Your task to perform on an android device: delete browsing data in the chrome app Image 0: 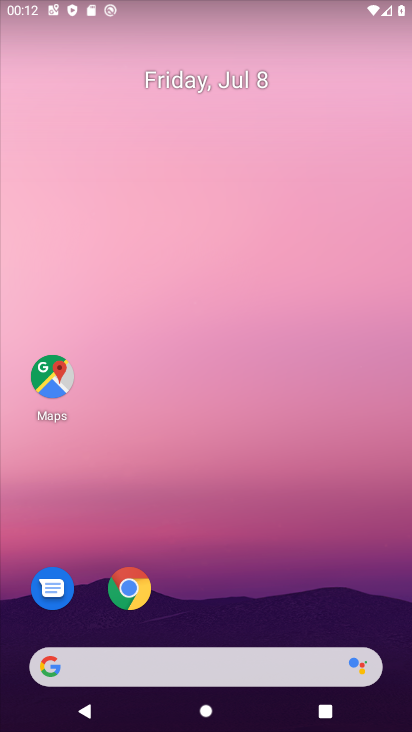
Step 0: click (304, 22)
Your task to perform on an android device: delete browsing data in the chrome app Image 1: 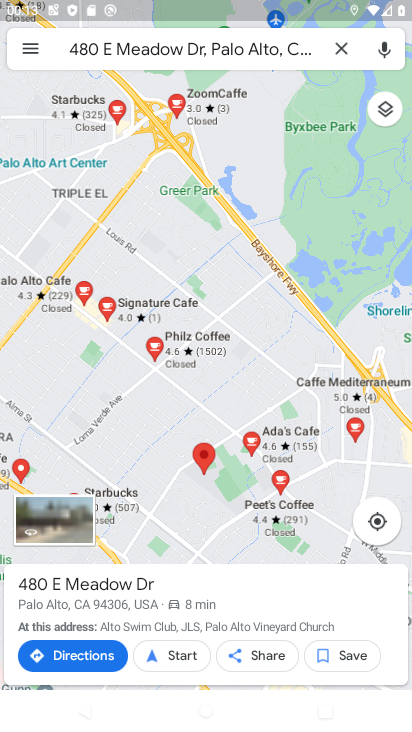
Step 1: press home button
Your task to perform on an android device: delete browsing data in the chrome app Image 2: 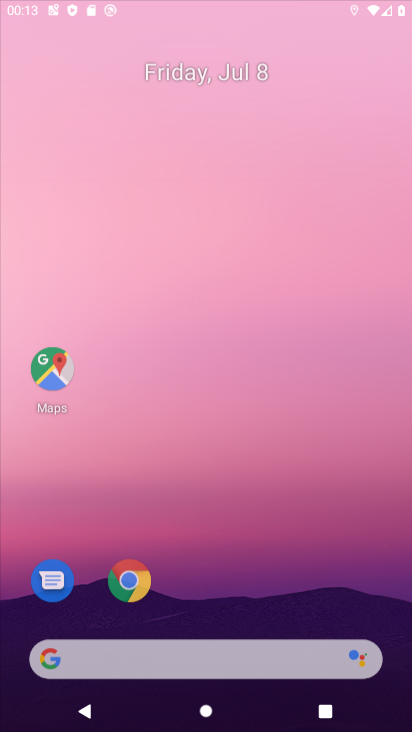
Step 2: drag from (193, 605) to (330, 99)
Your task to perform on an android device: delete browsing data in the chrome app Image 3: 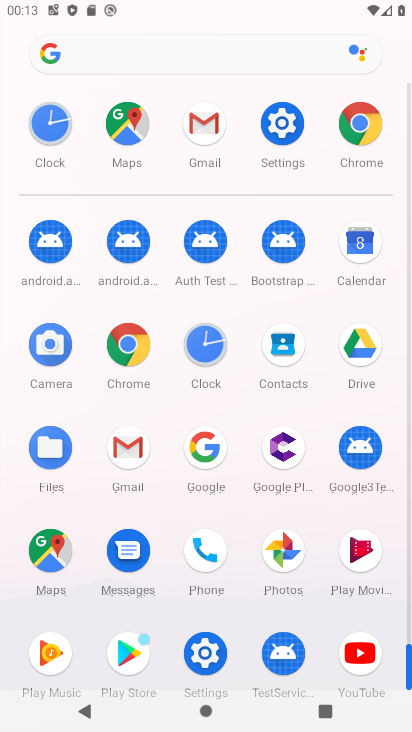
Step 3: click (367, 120)
Your task to perform on an android device: delete browsing data in the chrome app Image 4: 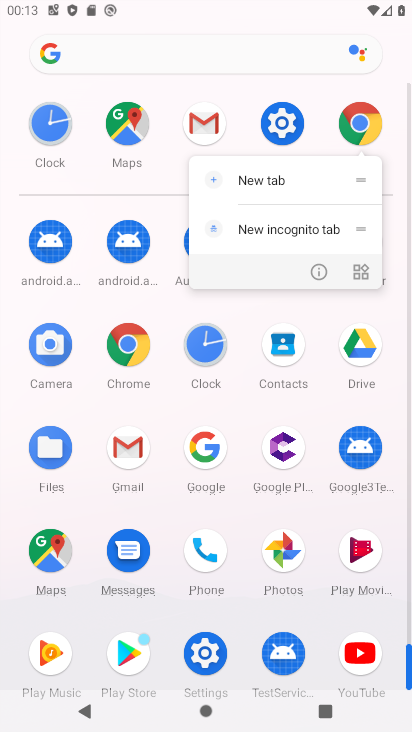
Step 4: click (324, 266)
Your task to perform on an android device: delete browsing data in the chrome app Image 5: 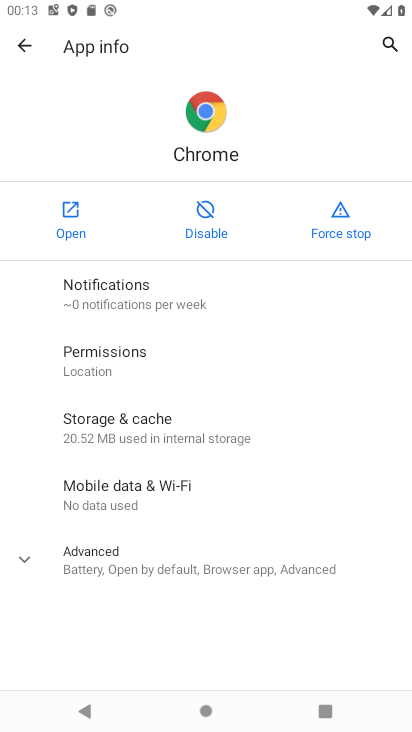
Step 5: click (62, 212)
Your task to perform on an android device: delete browsing data in the chrome app Image 6: 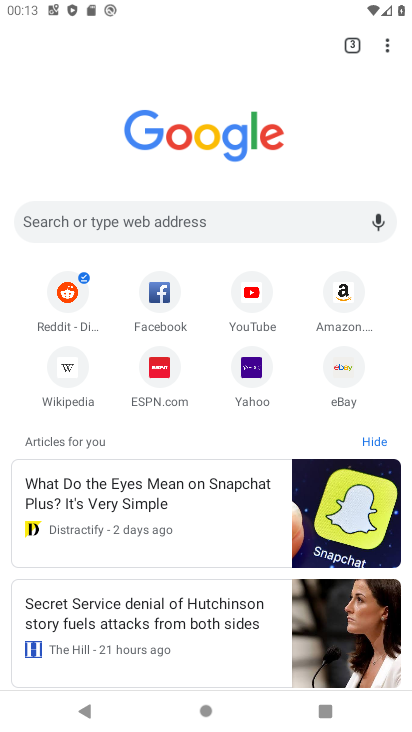
Step 6: click (391, 37)
Your task to perform on an android device: delete browsing data in the chrome app Image 7: 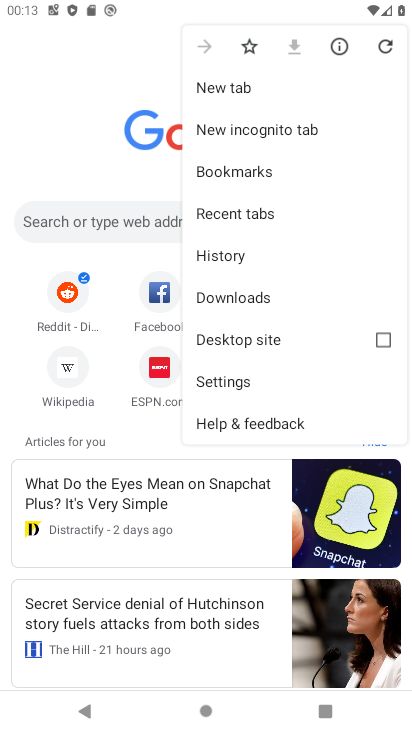
Step 7: click (241, 250)
Your task to perform on an android device: delete browsing data in the chrome app Image 8: 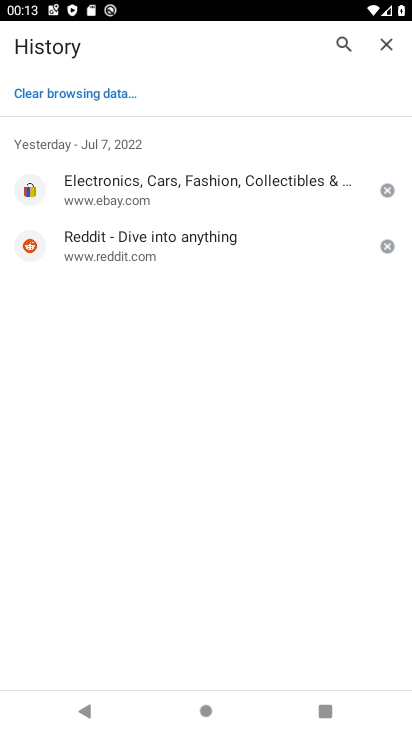
Step 8: click (43, 97)
Your task to perform on an android device: delete browsing data in the chrome app Image 9: 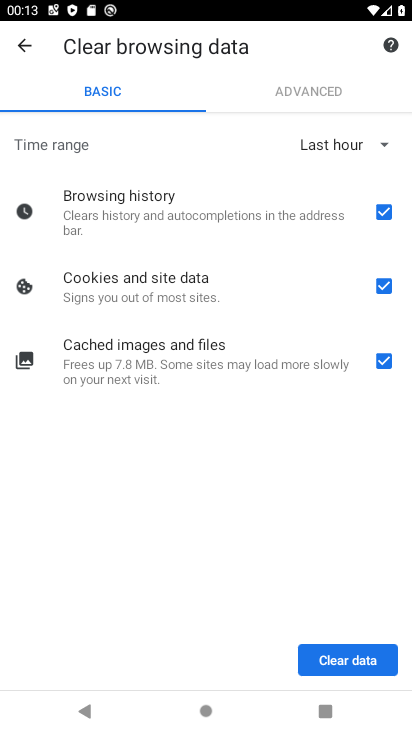
Step 9: click (341, 658)
Your task to perform on an android device: delete browsing data in the chrome app Image 10: 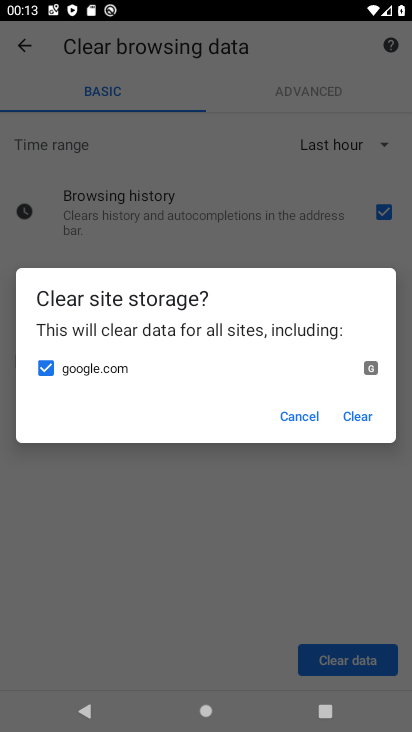
Step 10: click (355, 410)
Your task to perform on an android device: delete browsing data in the chrome app Image 11: 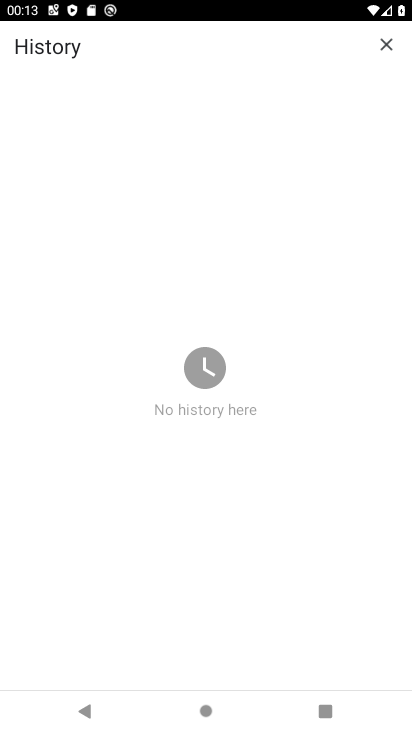
Step 11: task complete